Your task to perform on an android device: open app "Adobe Acrobat Reader" (install if not already installed), go to login, and select forgot password Image 0: 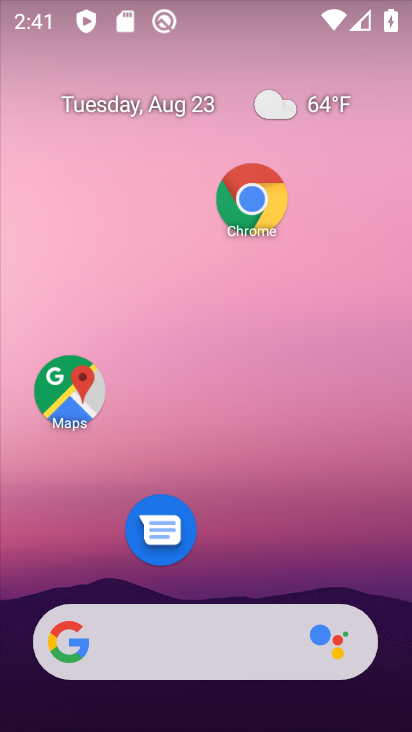
Step 0: drag from (266, 573) to (256, 12)
Your task to perform on an android device: open app "Adobe Acrobat Reader" (install if not already installed), go to login, and select forgot password Image 1: 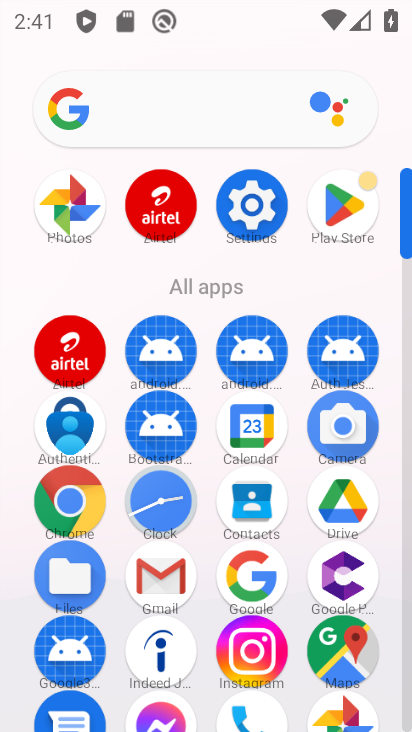
Step 1: click (344, 228)
Your task to perform on an android device: open app "Adobe Acrobat Reader" (install if not already installed), go to login, and select forgot password Image 2: 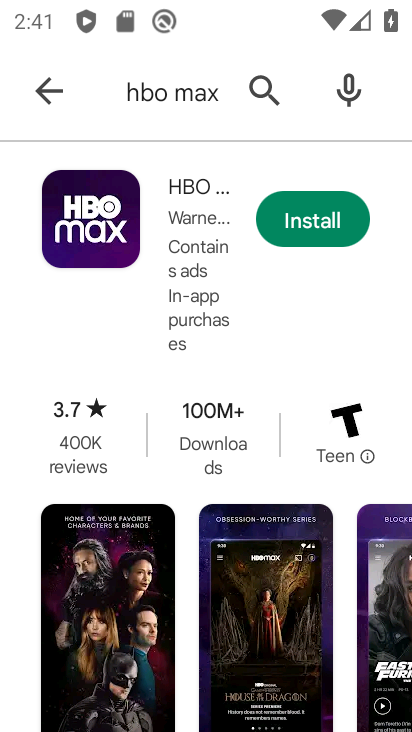
Step 2: click (186, 98)
Your task to perform on an android device: open app "Adobe Acrobat Reader" (install if not already installed), go to login, and select forgot password Image 3: 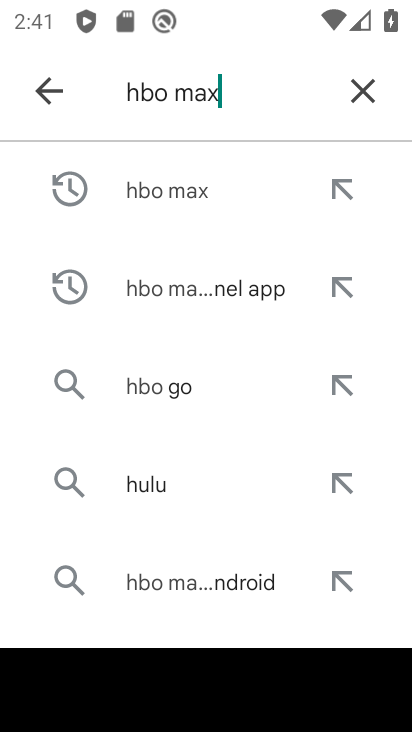
Step 3: click (361, 80)
Your task to perform on an android device: open app "Adobe Acrobat Reader" (install if not already installed), go to login, and select forgot password Image 4: 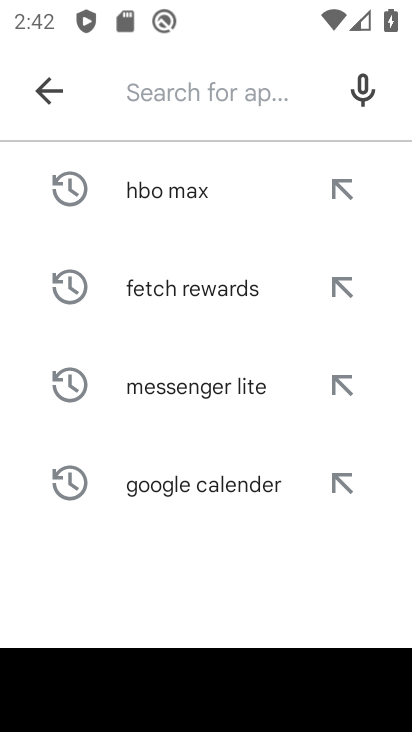
Step 4: type "Adobe Acrobat reader"
Your task to perform on an android device: open app "Adobe Acrobat Reader" (install if not already installed), go to login, and select forgot password Image 5: 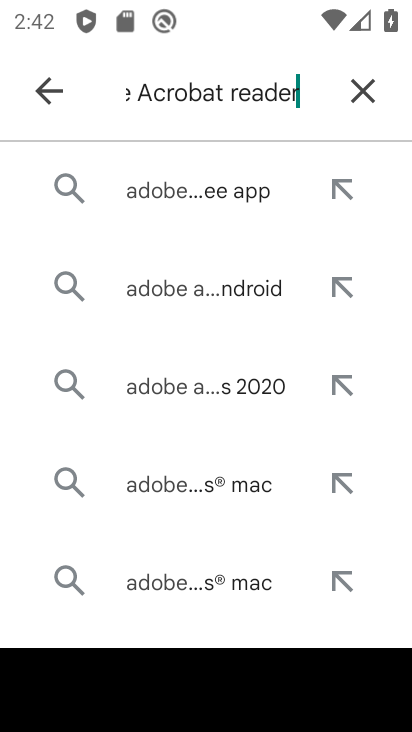
Step 5: click (252, 201)
Your task to perform on an android device: open app "Adobe Acrobat Reader" (install if not already installed), go to login, and select forgot password Image 6: 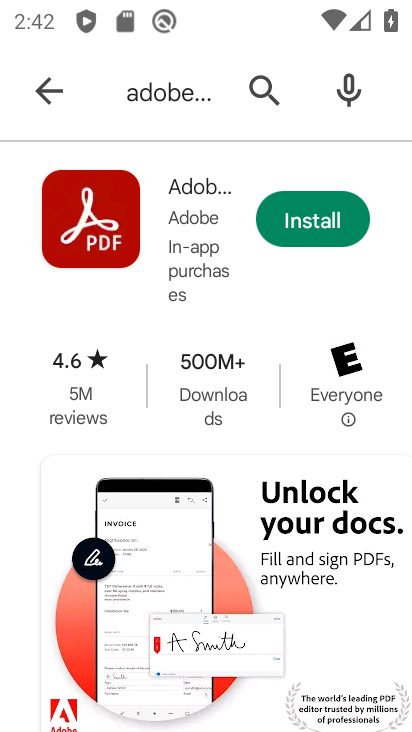
Step 6: click (329, 226)
Your task to perform on an android device: open app "Adobe Acrobat Reader" (install if not already installed), go to login, and select forgot password Image 7: 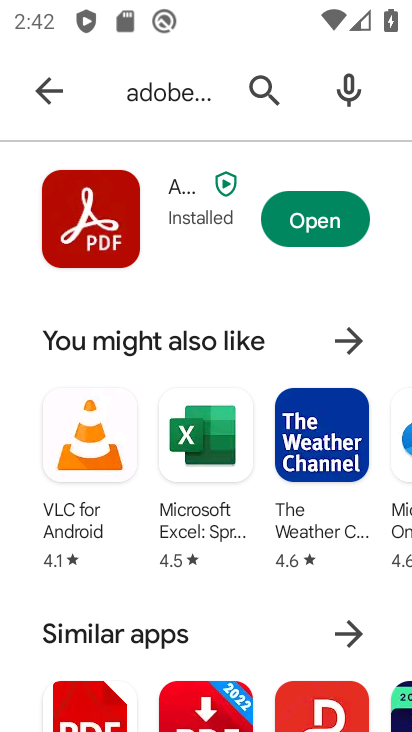
Step 7: click (317, 229)
Your task to perform on an android device: open app "Adobe Acrobat Reader" (install if not already installed), go to login, and select forgot password Image 8: 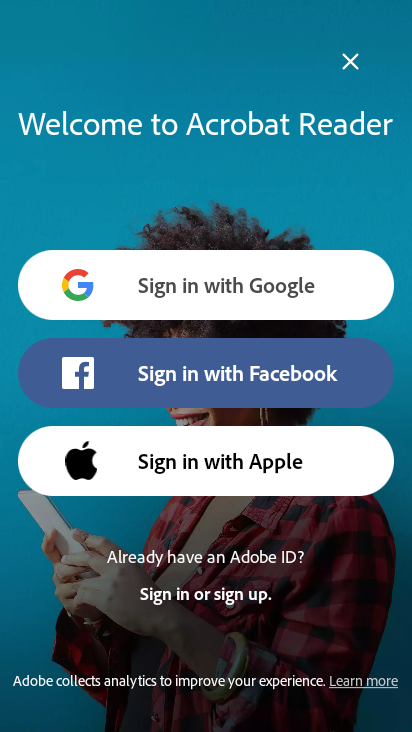
Step 8: click (188, 592)
Your task to perform on an android device: open app "Adobe Acrobat Reader" (install if not already installed), go to login, and select forgot password Image 9: 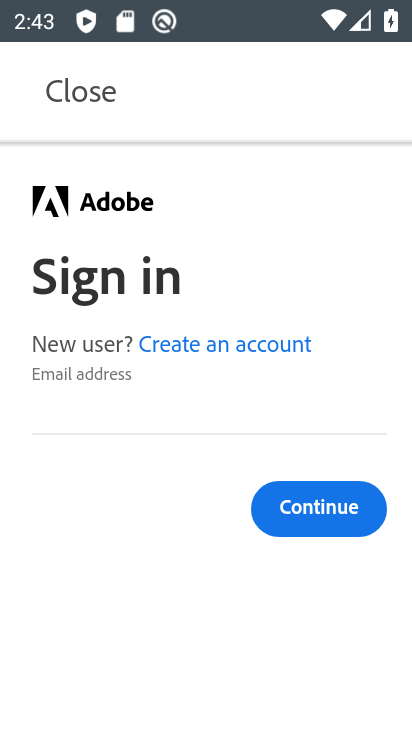
Step 9: task complete